Your task to perform on an android device: visit the assistant section in the google photos Image 0: 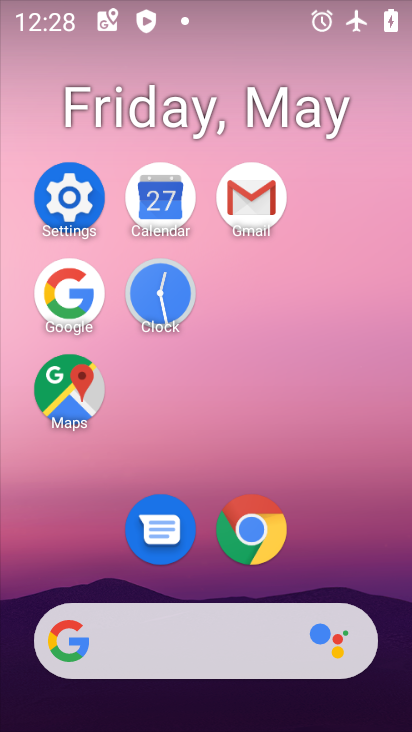
Step 0: click (317, 163)
Your task to perform on an android device: visit the assistant section in the google photos Image 1: 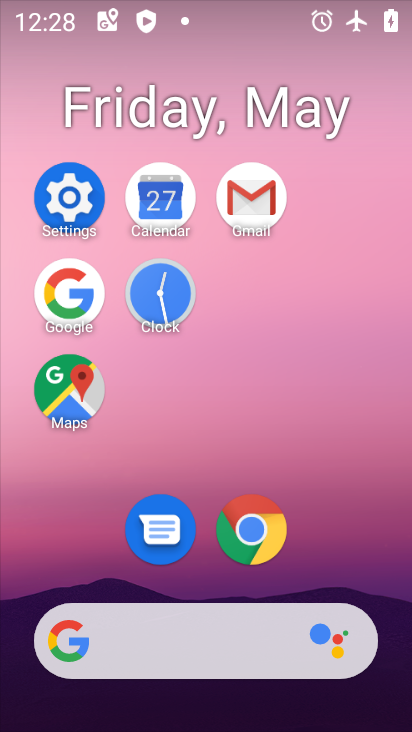
Step 1: drag from (357, 579) to (377, 56)
Your task to perform on an android device: visit the assistant section in the google photos Image 2: 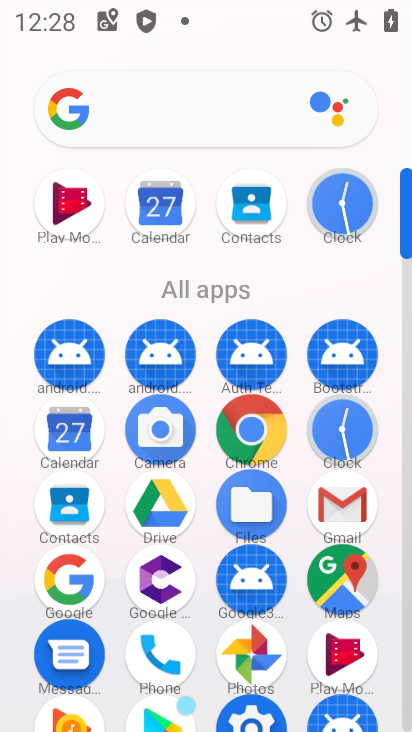
Step 2: drag from (193, 563) to (226, 199)
Your task to perform on an android device: visit the assistant section in the google photos Image 3: 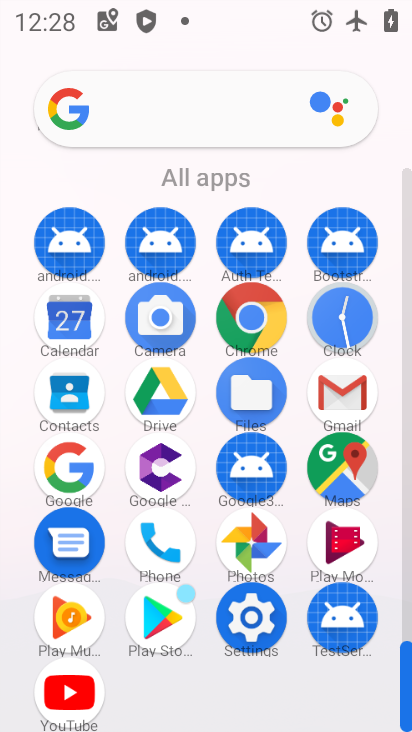
Step 3: drag from (259, 556) to (243, 302)
Your task to perform on an android device: visit the assistant section in the google photos Image 4: 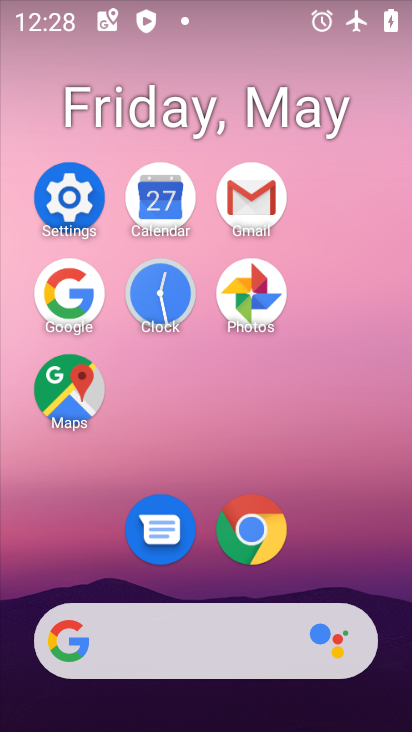
Step 4: click (245, 300)
Your task to perform on an android device: visit the assistant section in the google photos Image 5: 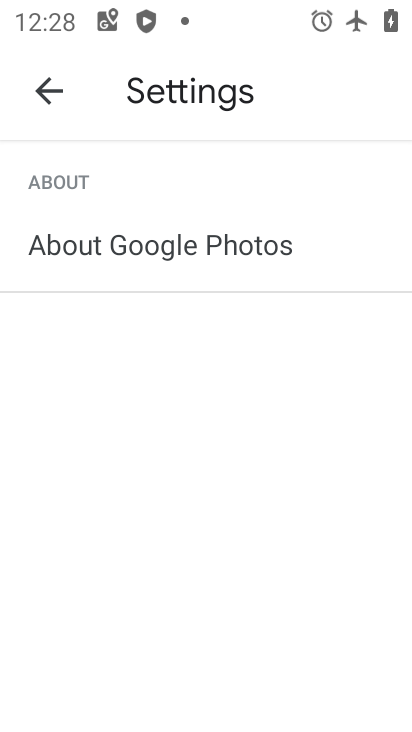
Step 5: click (47, 112)
Your task to perform on an android device: visit the assistant section in the google photos Image 6: 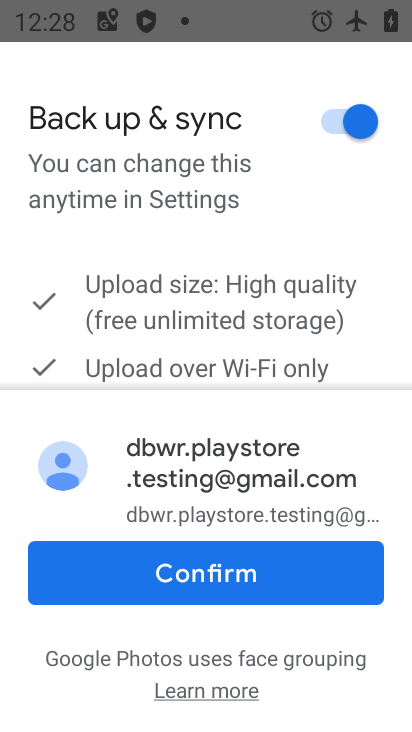
Step 6: click (238, 591)
Your task to perform on an android device: visit the assistant section in the google photos Image 7: 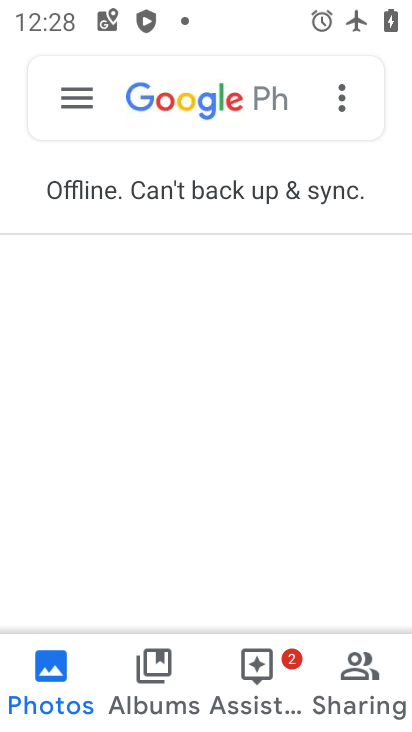
Step 7: click (276, 663)
Your task to perform on an android device: visit the assistant section in the google photos Image 8: 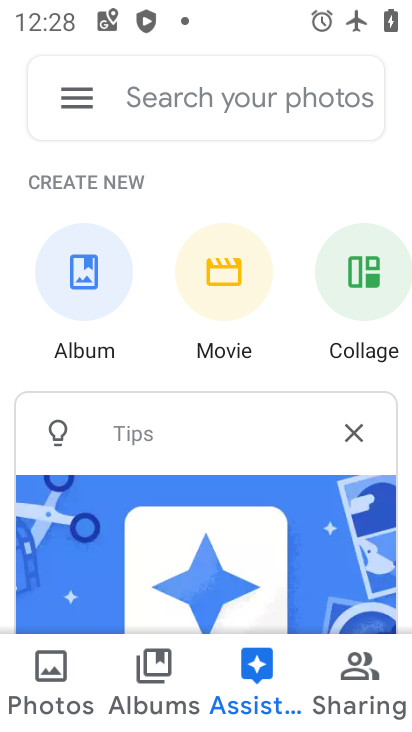
Step 8: task complete